Your task to perform on an android device: stop showing notifications on the lock screen Image 0: 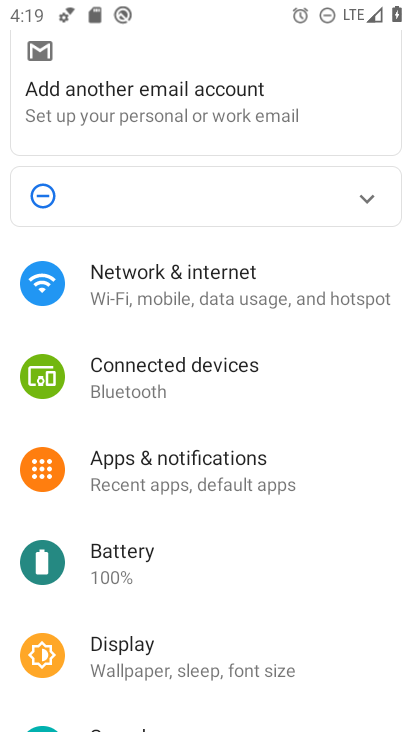
Step 0: click (162, 475)
Your task to perform on an android device: stop showing notifications on the lock screen Image 1: 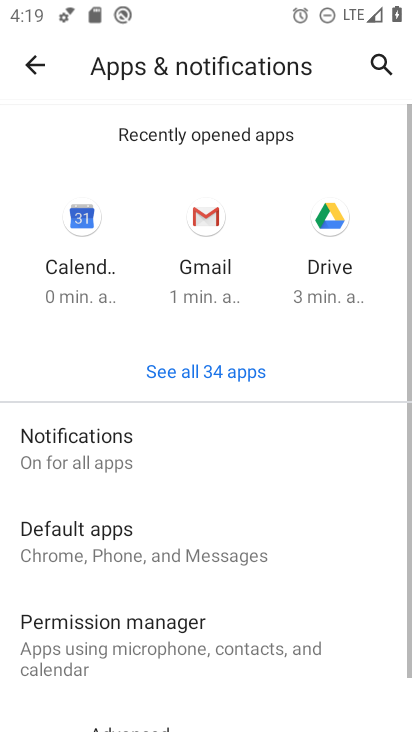
Step 1: click (105, 447)
Your task to perform on an android device: stop showing notifications on the lock screen Image 2: 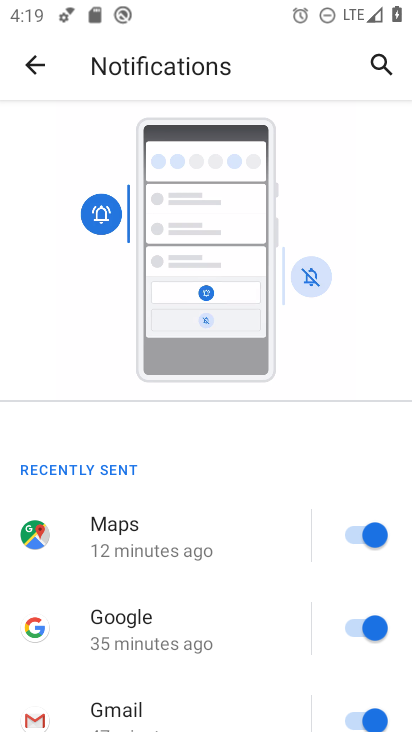
Step 2: drag from (259, 687) to (247, 428)
Your task to perform on an android device: stop showing notifications on the lock screen Image 3: 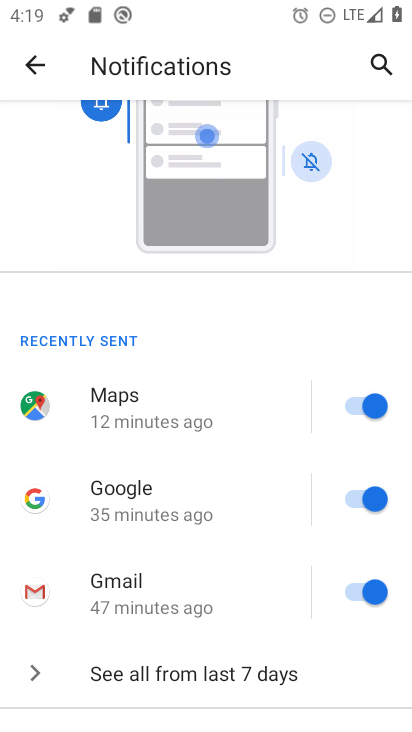
Step 3: drag from (257, 694) to (274, 457)
Your task to perform on an android device: stop showing notifications on the lock screen Image 4: 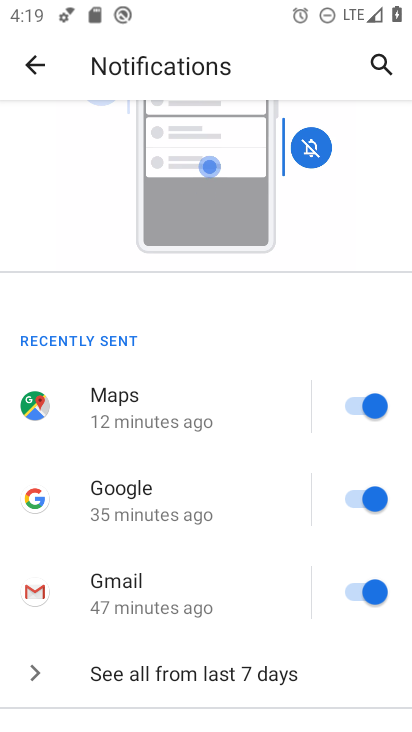
Step 4: drag from (248, 589) to (256, 424)
Your task to perform on an android device: stop showing notifications on the lock screen Image 5: 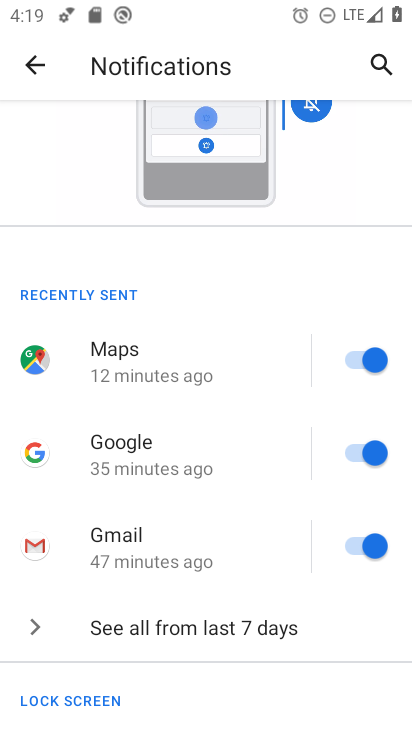
Step 5: drag from (263, 704) to (234, 487)
Your task to perform on an android device: stop showing notifications on the lock screen Image 6: 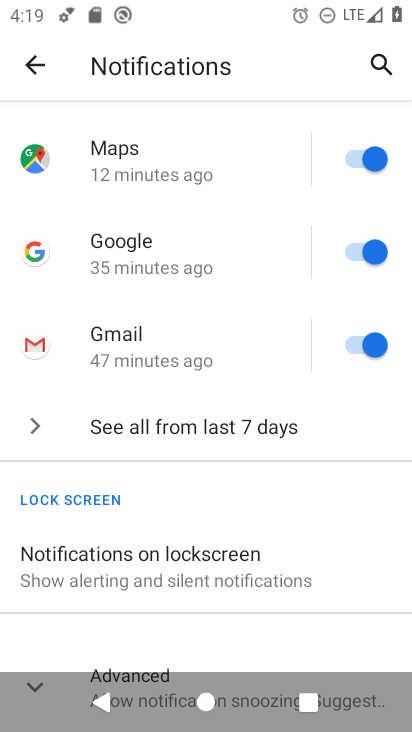
Step 6: drag from (257, 680) to (276, 466)
Your task to perform on an android device: stop showing notifications on the lock screen Image 7: 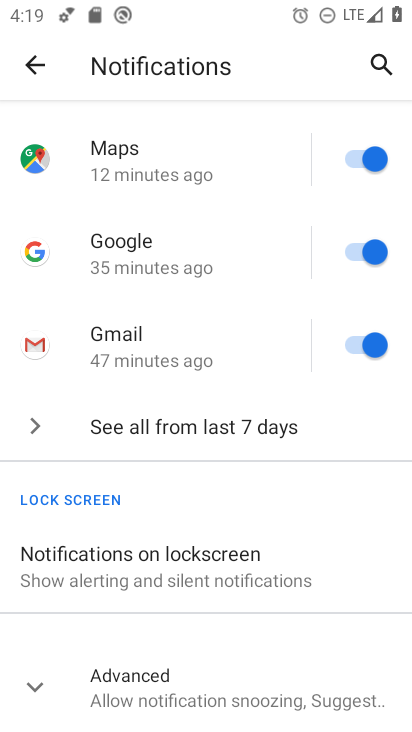
Step 7: click (128, 551)
Your task to perform on an android device: stop showing notifications on the lock screen Image 8: 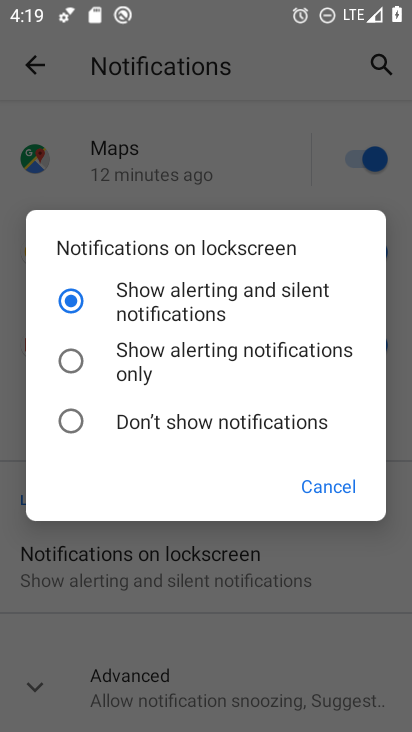
Step 8: click (78, 413)
Your task to perform on an android device: stop showing notifications on the lock screen Image 9: 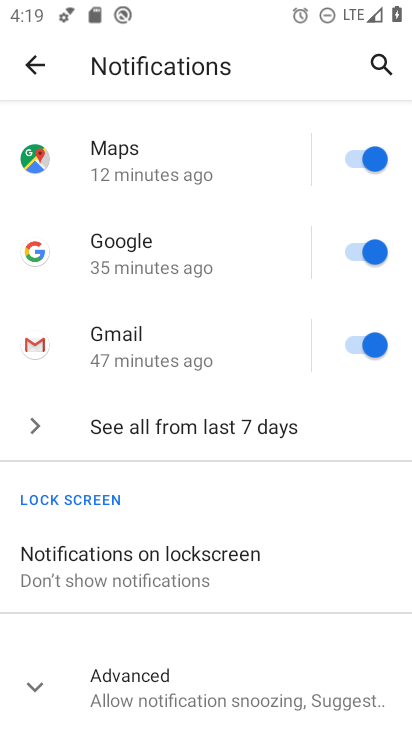
Step 9: task complete